Your task to perform on an android device: Open CNN.com Image 0: 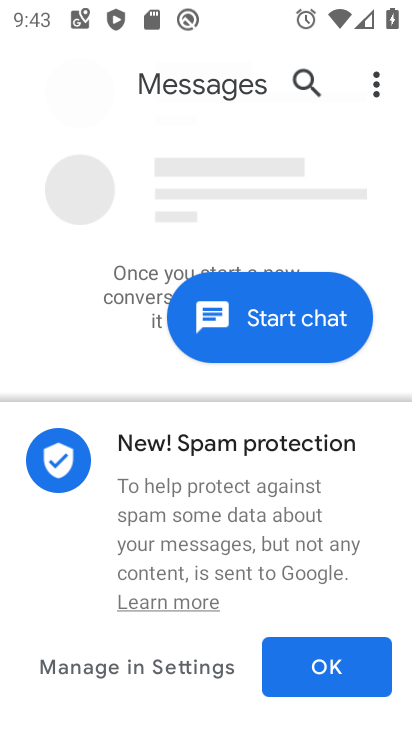
Step 0: press home button
Your task to perform on an android device: Open CNN.com Image 1: 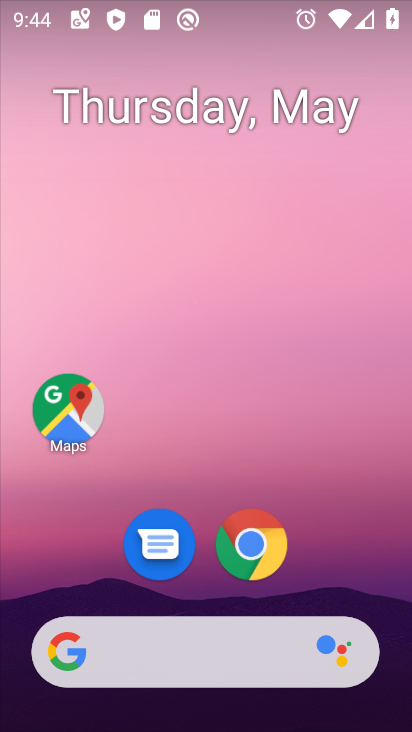
Step 1: click (241, 545)
Your task to perform on an android device: Open CNN.com Image 2: 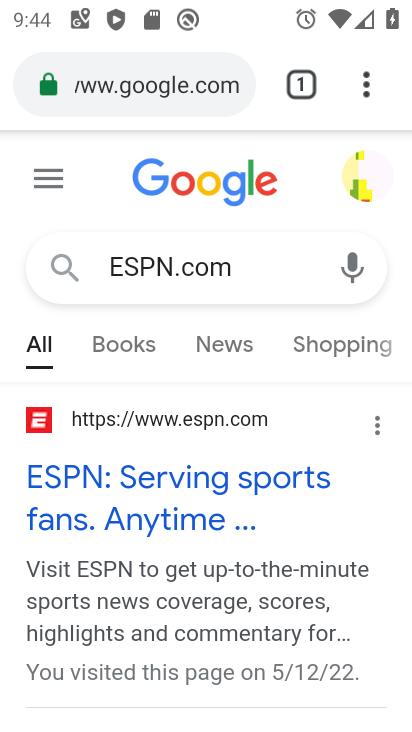
Step 2: click (164, 87)
Your task to perform on an android device: Open CNN.com Image 3: 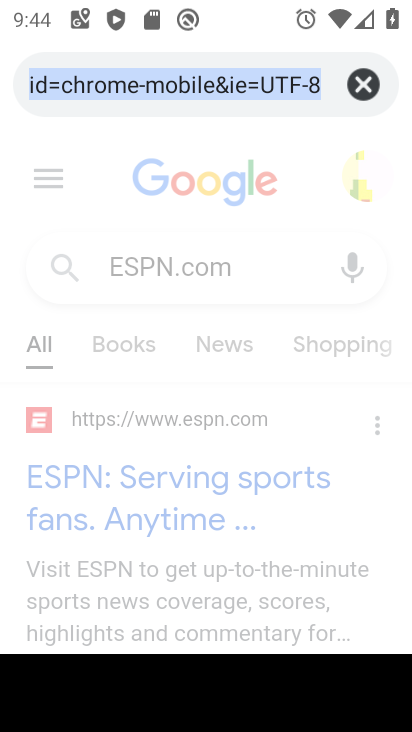
Step 3: type "CNN.com"
Your task to perform on an android device: Open CNN.com Image 4: 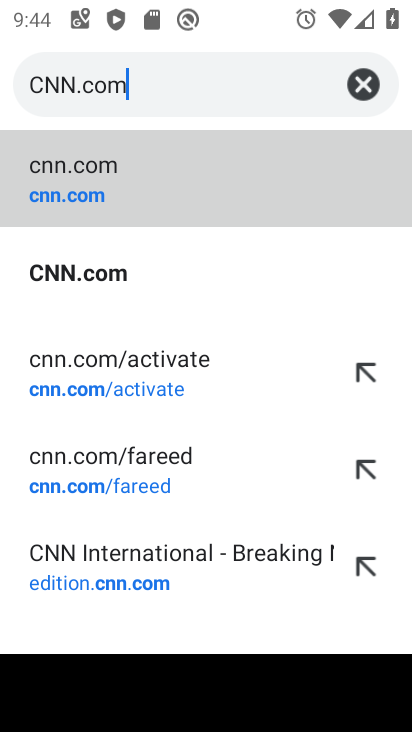
Step 4: click (194, 158)
Your task to perform on an android device: Open CNN.com Image 5: 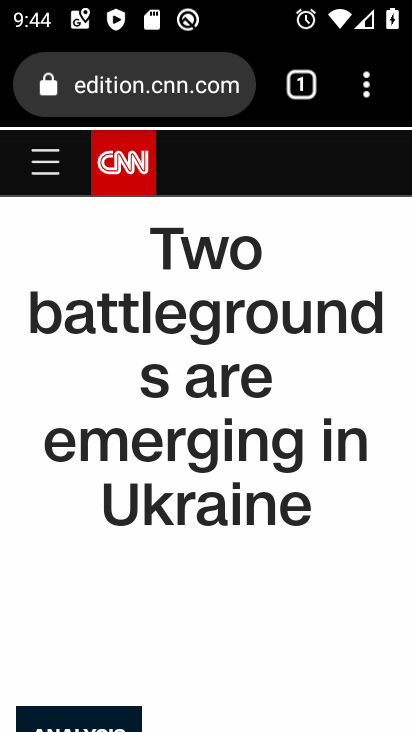
Step 5: task complete